Your task to perform on an android device: open app "DuckDuckGo Privacy Browser" (install if not already installed), go to login, and select forgot password Image 0: 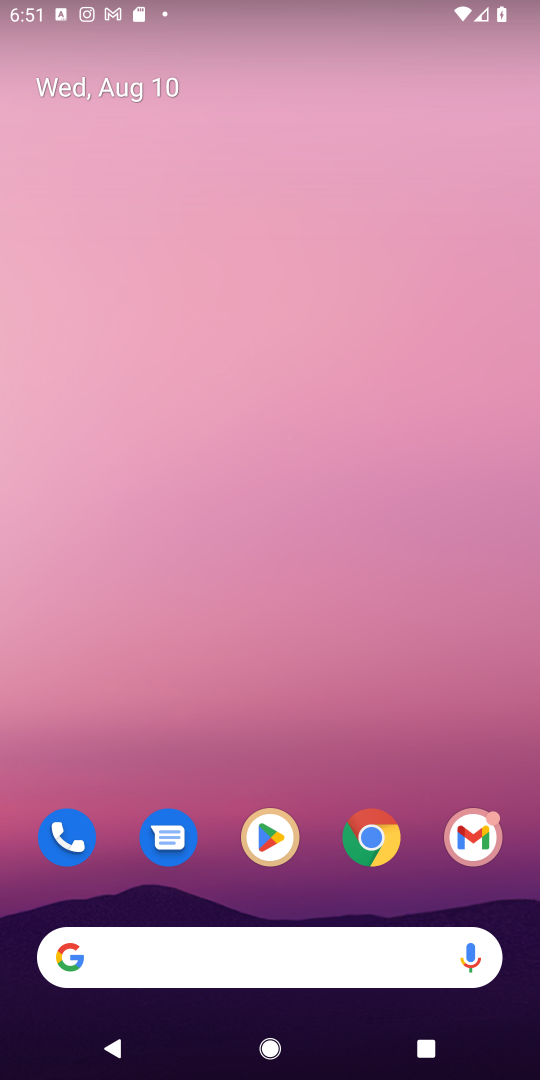
Step 0: press home button
Your task to perform on an android device: open app "DuckDuckGo Privacy Browser" (install if not already installed), go to login, and select forgot password Image 1: 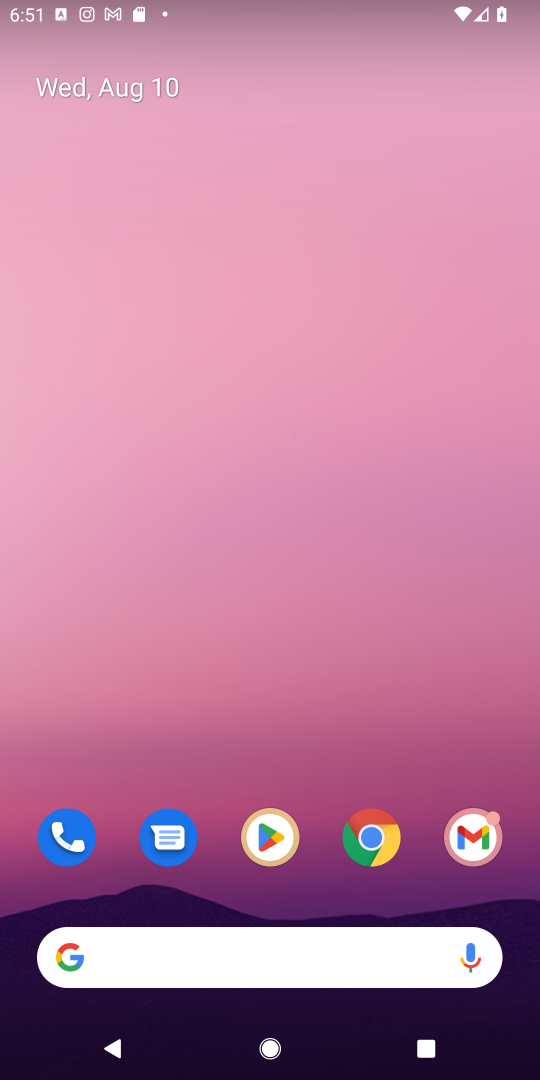
Step 1: click (268, 844)
Your task to perform on an android device: open app "DuckDuckGo Privacy Browser" (install if not already installed), go to login, and select forgot password Image 2: 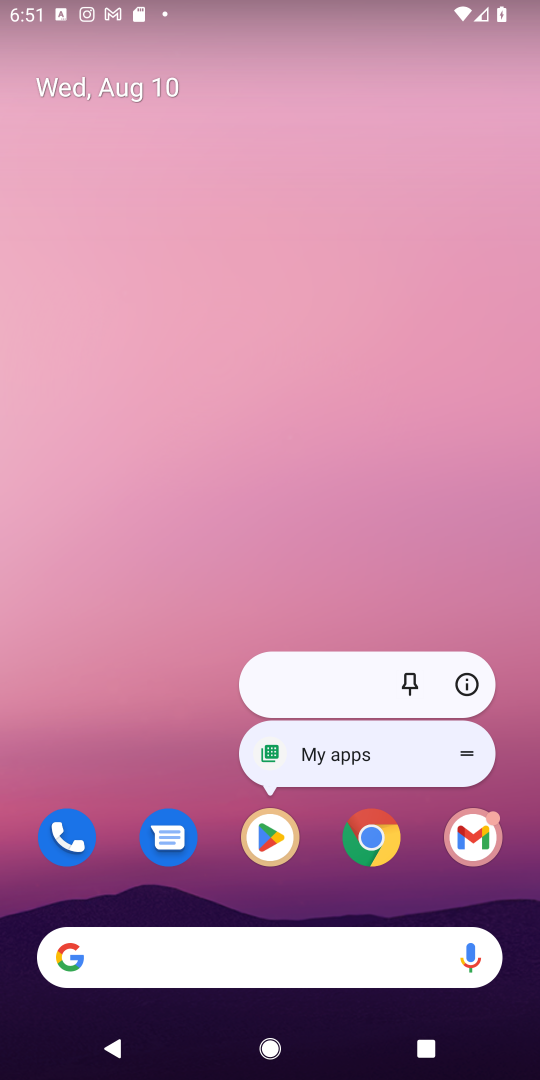
Step 2: click (268, 836)
Your task to perform on an android device: open app "DuckDuckGo Privacy Browser" (install if not already installed), go to login, and select forgot password Image 3: 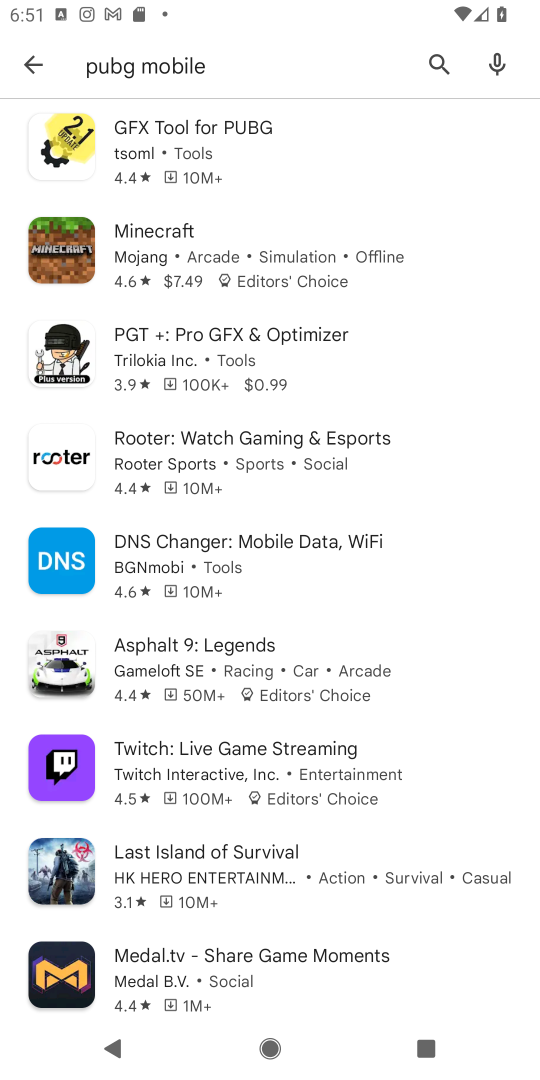
Step 3: click (435, 59)
Your task to perform on an android device: open app "DuckDuckGo Privacy Browser" (install if not already installed), go to login, and select forgot password Image 4: 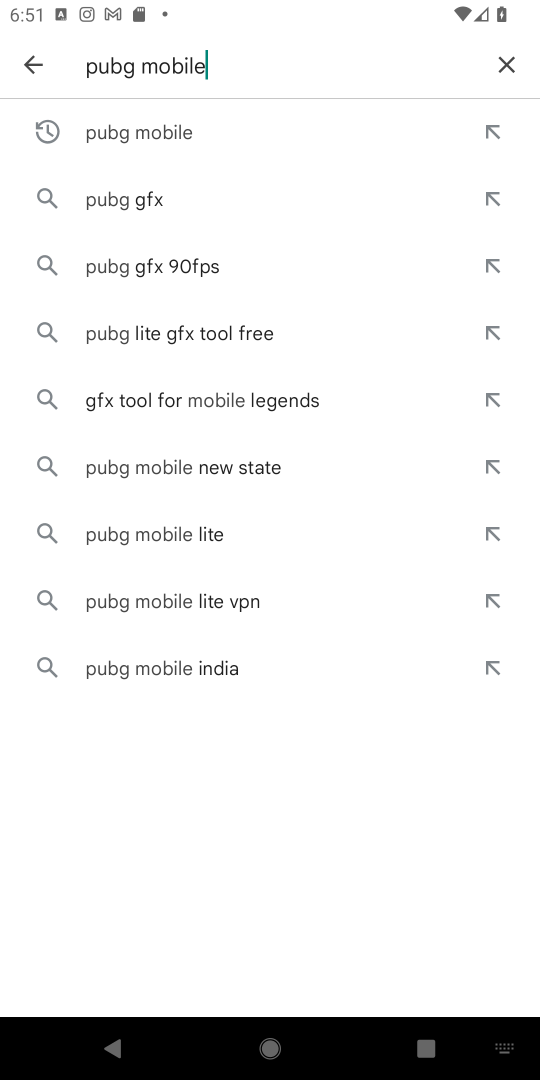
Step 4: click (494, 66)
Your task to perform on an android device: open app "DuckDuckGo Privacy Browser" (install if not already installed), go to login, and select forgot password Image 5: 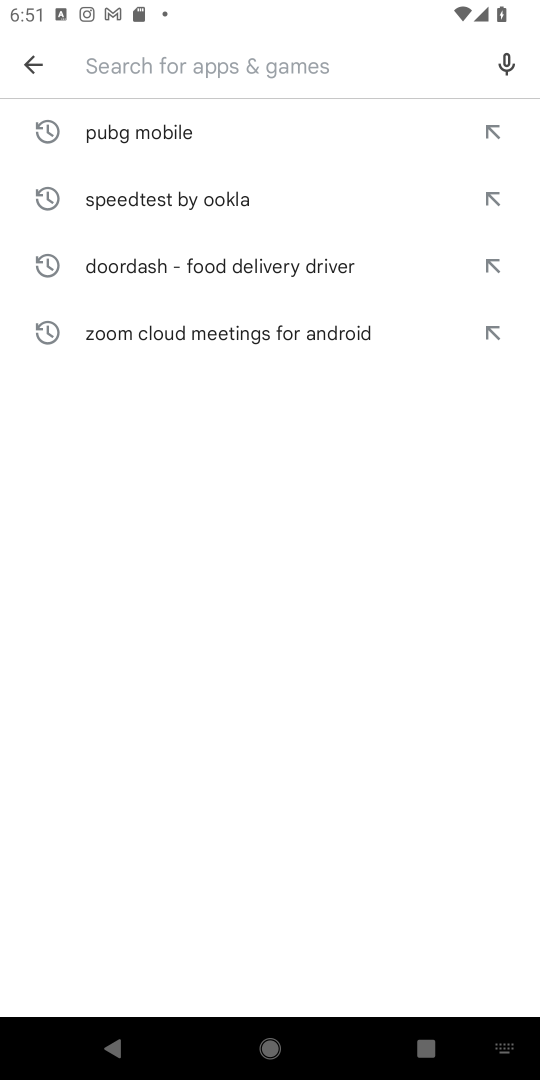
Step 5: type "DuckDuckGo Privacy Browser"
Your task to perform on an android device: open app "DuckDuckGo Privacy Browser" (install if not already installed), go to login, and select forgot password Image 6: 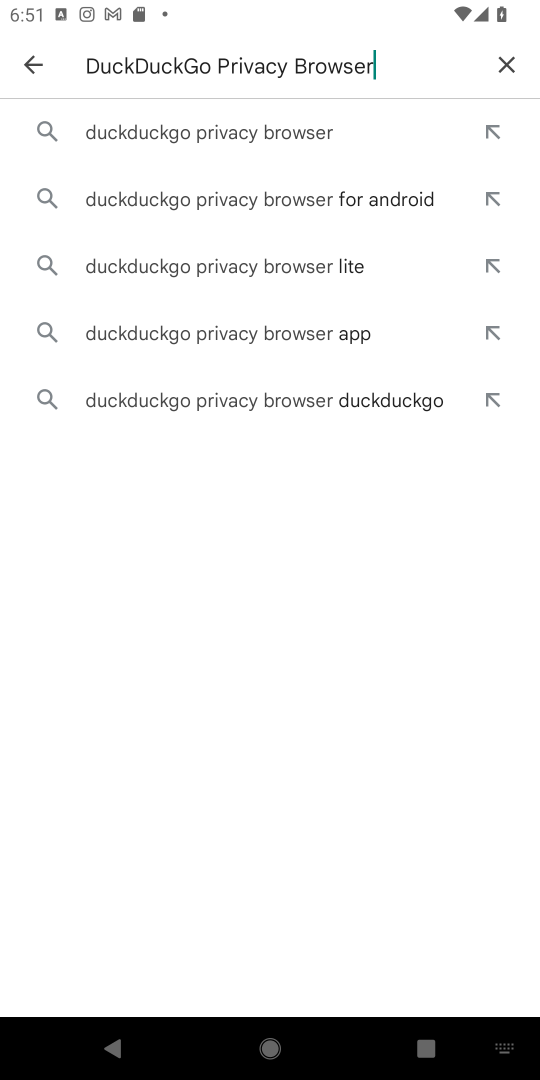
Step 6: click (207, 131)
Your task to perform on an android device: open app "DuckDuckGo Privacy Browser" (install if not already installed), go to login, and select forgot password Image 7: 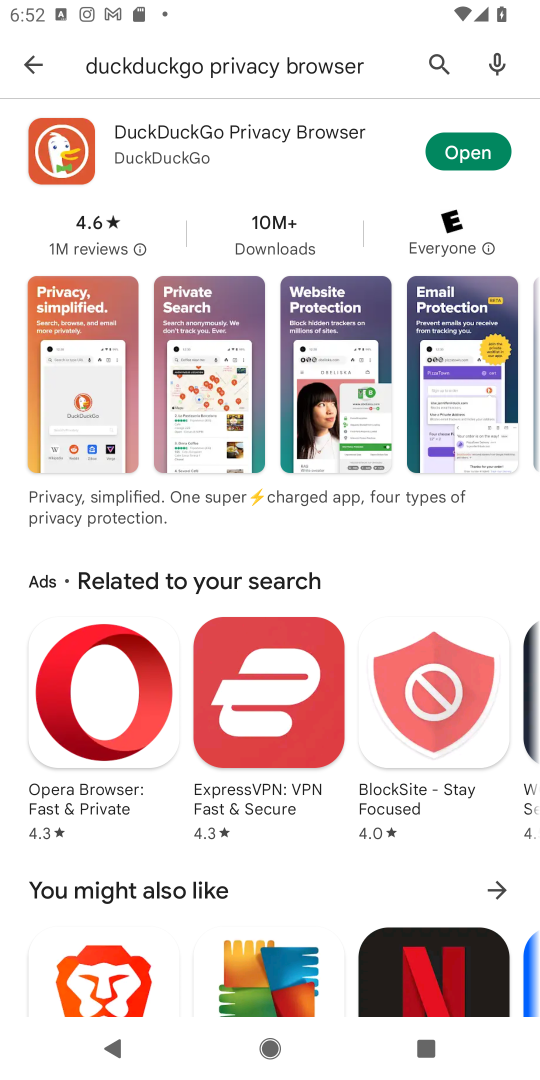
Step 7: click (480, 147)
Your task to perform on an android device: open app "DuckDuckGo Privacy Browser" (install if not already installed), go to login, and select forgot password Image 8: 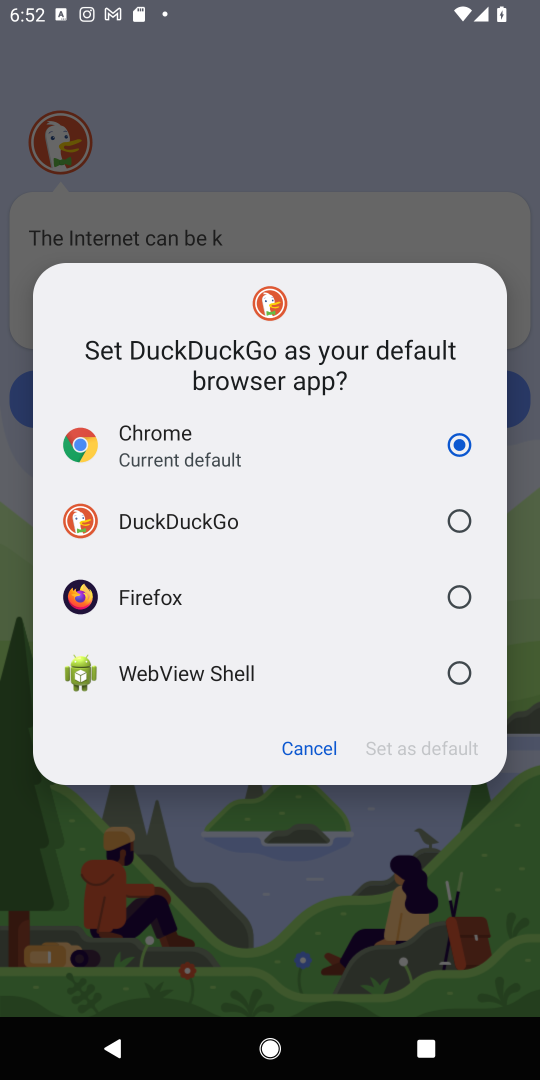
Step 8: task complete